Your task to perform on an android device: Check the weather Image 0: 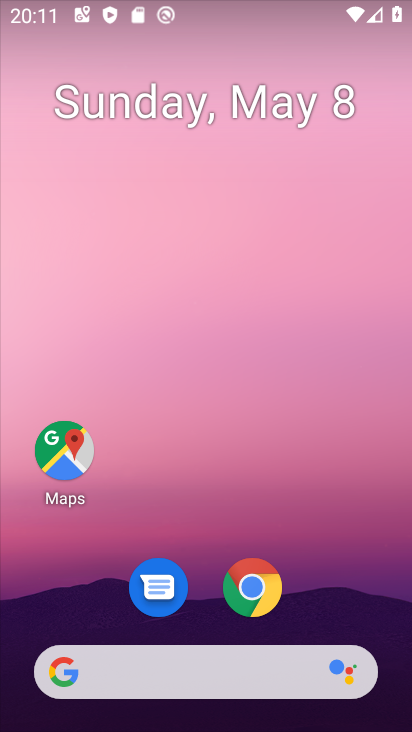
Step 0: drag from (194, 524) to (178, 1)
Your task to perform on an android device: Check the weather Image 1: 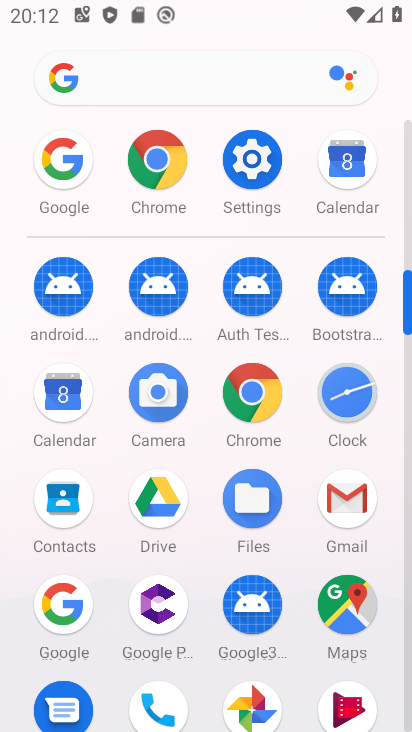
Step 1: click (57, 161)
Your task to perform on an android device: Check the weather Image 2: 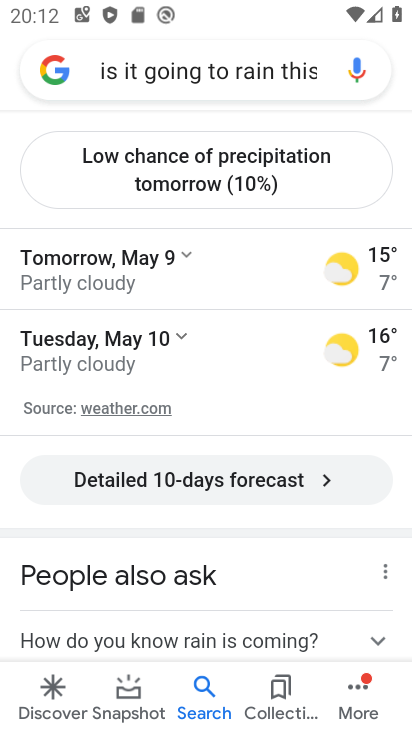
Step 2: drag from (201, 265) to (229, 499)
Your task to perform on an android device: Check the weather Image 3: 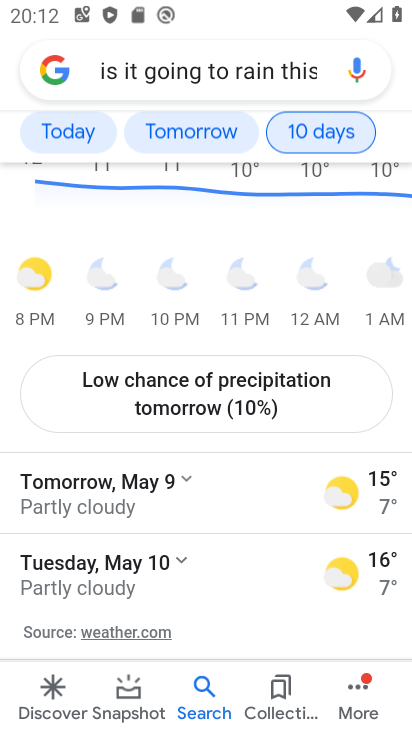
Step 3: drag from (179, 237) to (228, 522)
Your task to perform on an android device: Check the weather Image 4: 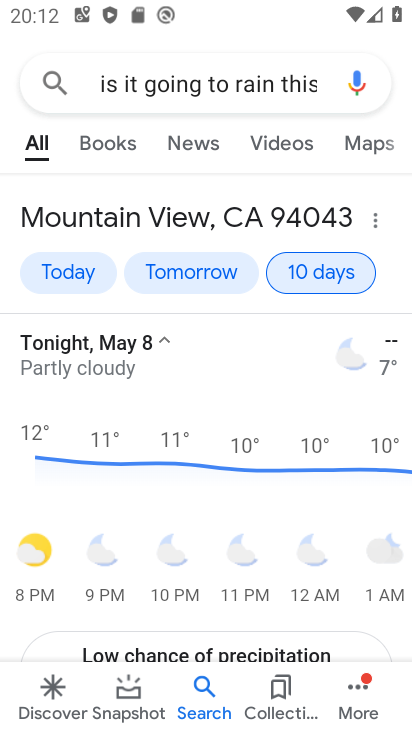
Step 4: click (60, 276)
Your task to perform on an android device: Check the weather Image 5: 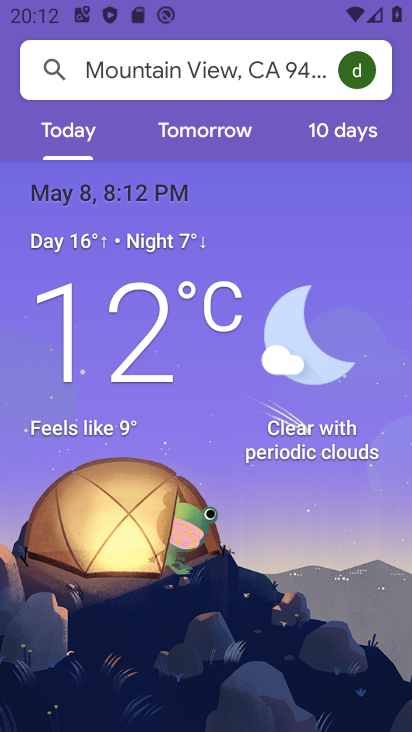
Step 5: task complete